Your task to perform on an android device: Open settings Image 0: 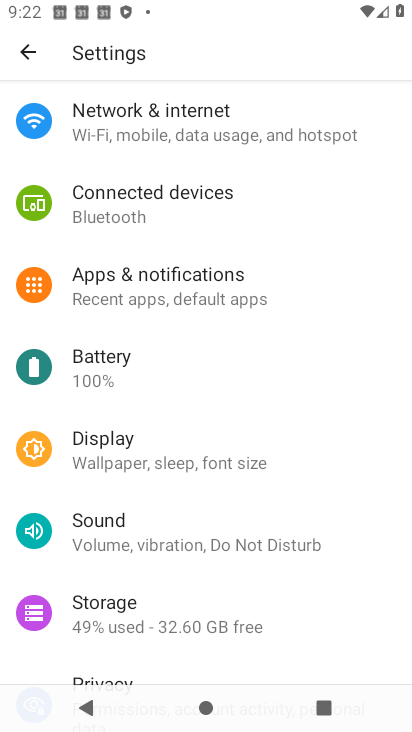
Step 0: drag from (235, 565) to (181, 58)
Your task to perform on an android device: Open settings Image 1: 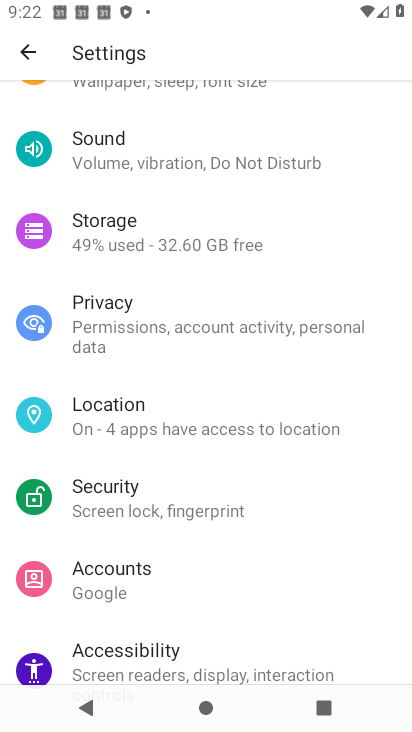
Step 1: task complete